Your task to perform on an android device: check battery use Image 0: 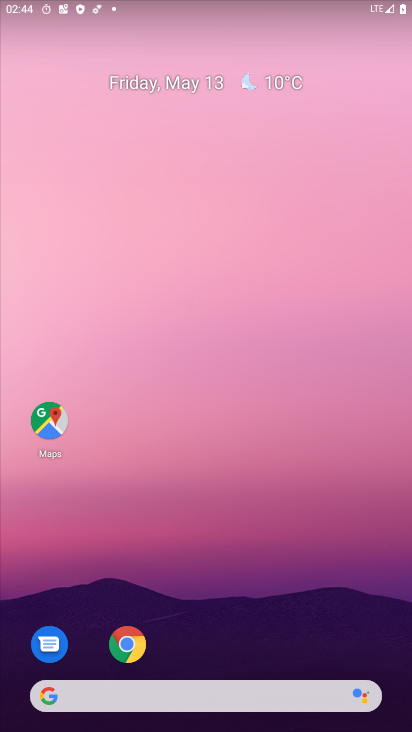
Step 0: drag from (276, 695) to (234, 4)
Your task to perform on an android device: check battery use Image 1: 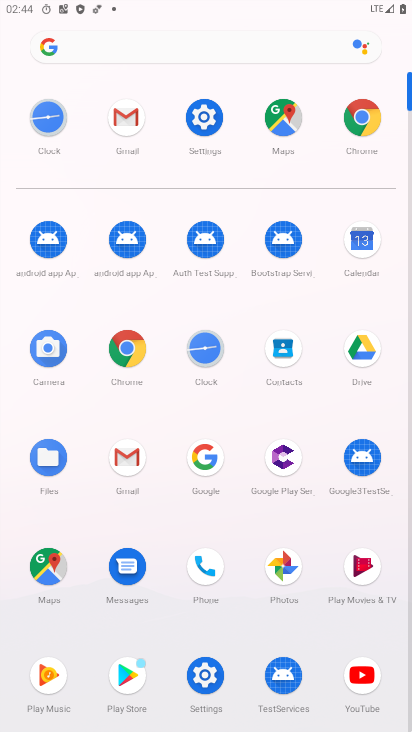
Step 1: click (211, 122)
Your task to perform on an android device: check battery use Image 2: 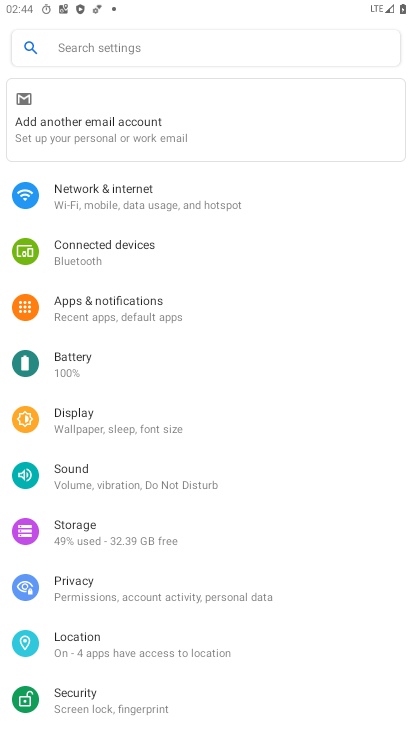
Step 2: click (72, 370)
Your task to perform on an android device: check battery use Image 3: 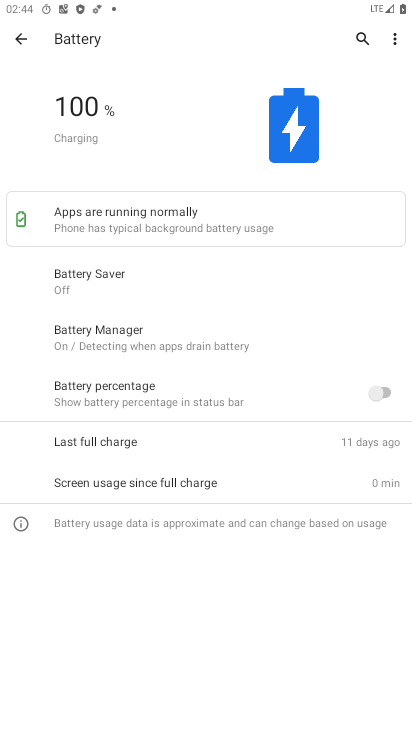
Step 3: task complete